Your task to perform on an android device: Is it going to rain tomorrow? Image 0: 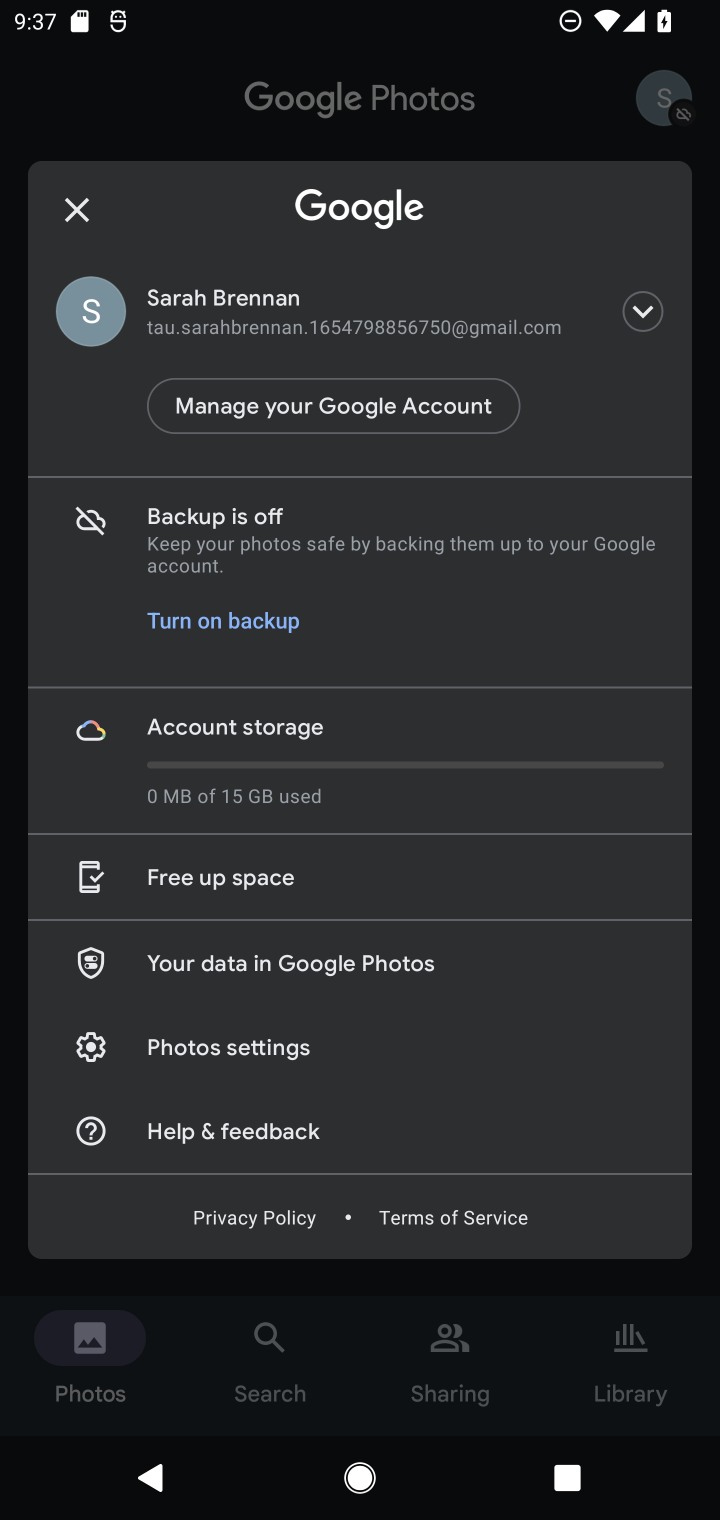
Step 0: press home button
Your task to perform on an android device: Is it going to rain tomorrow? Image 1: 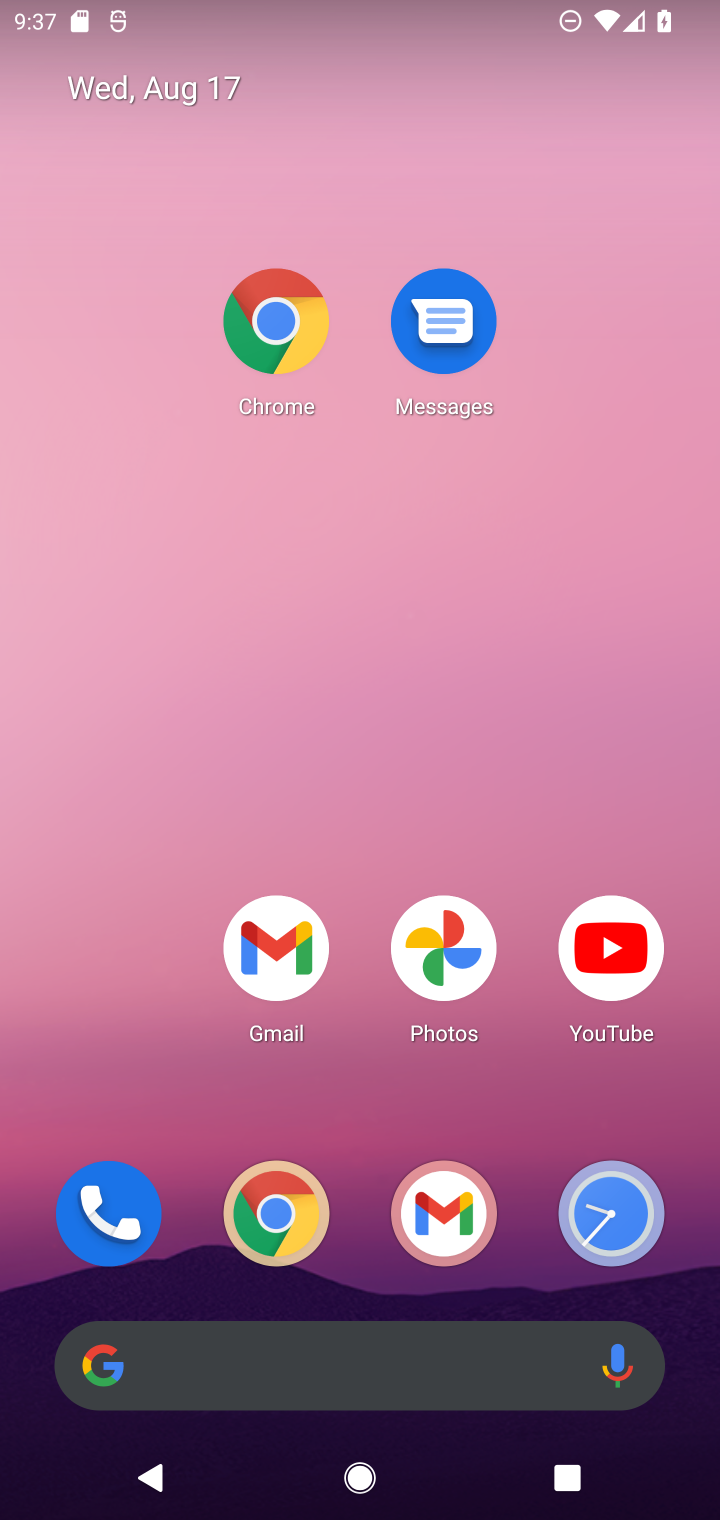
Step 1: click (425, 1362)
Your task to perform on an android device: Is it going to rain tomorrow? Image 2: 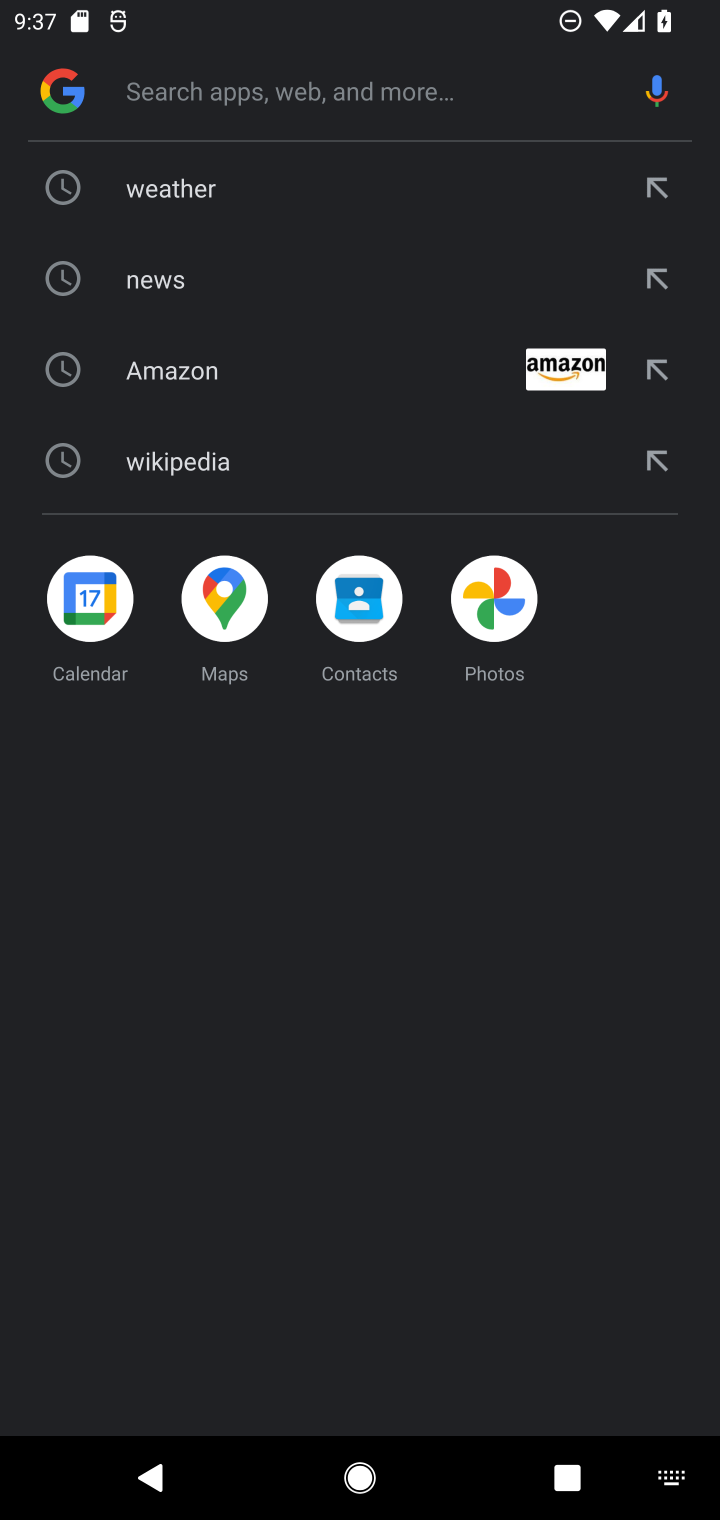
Step 2: click (169, 152)
Your task to perform on an android device: Is it going to rain tomorrow? Image 3: 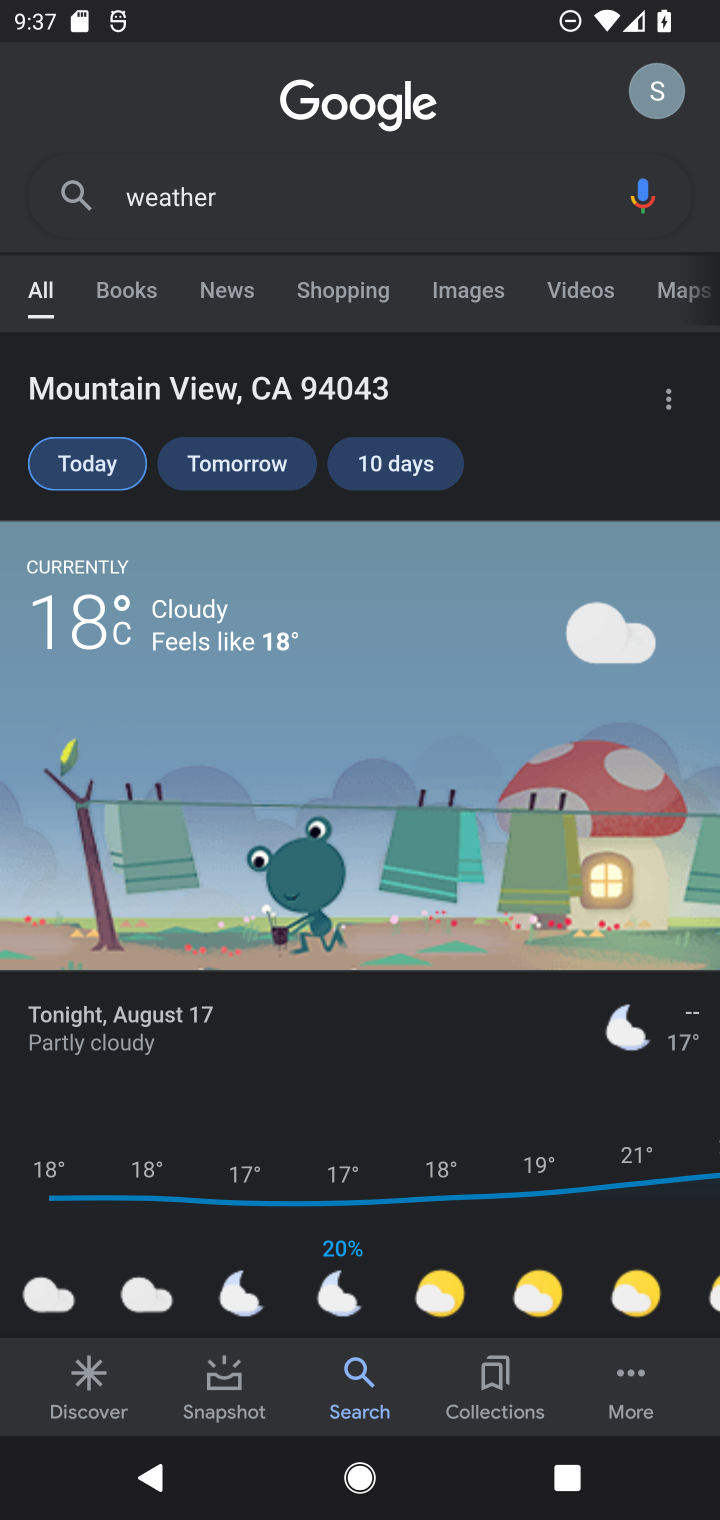
Step 3: task complete